Your task to perform on an android device: uninstall "Move to iOS" Image 0: 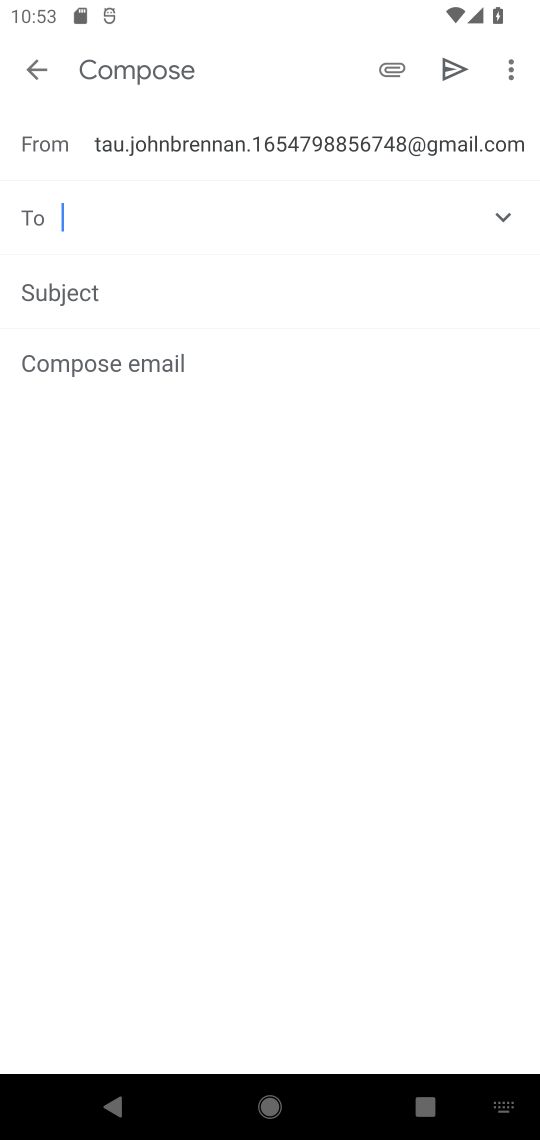
Step 0: press home button
Your task to perform on an android device: uninstall "Move to iOS" Image 1: 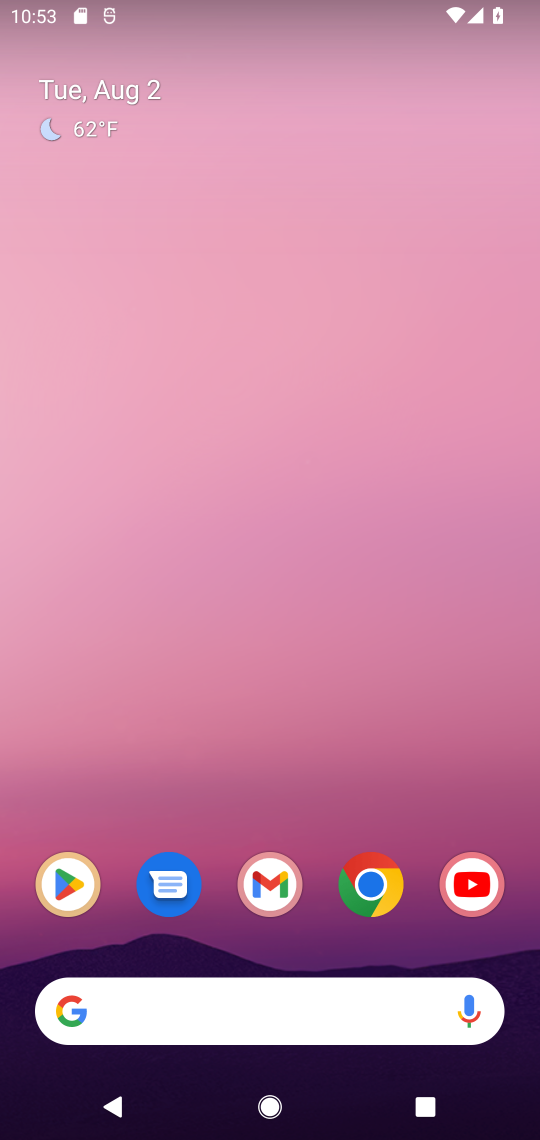
Step 1: click (66, 898)
Your task to perform on an android device: uninstall "Move to iOS" Image 2: 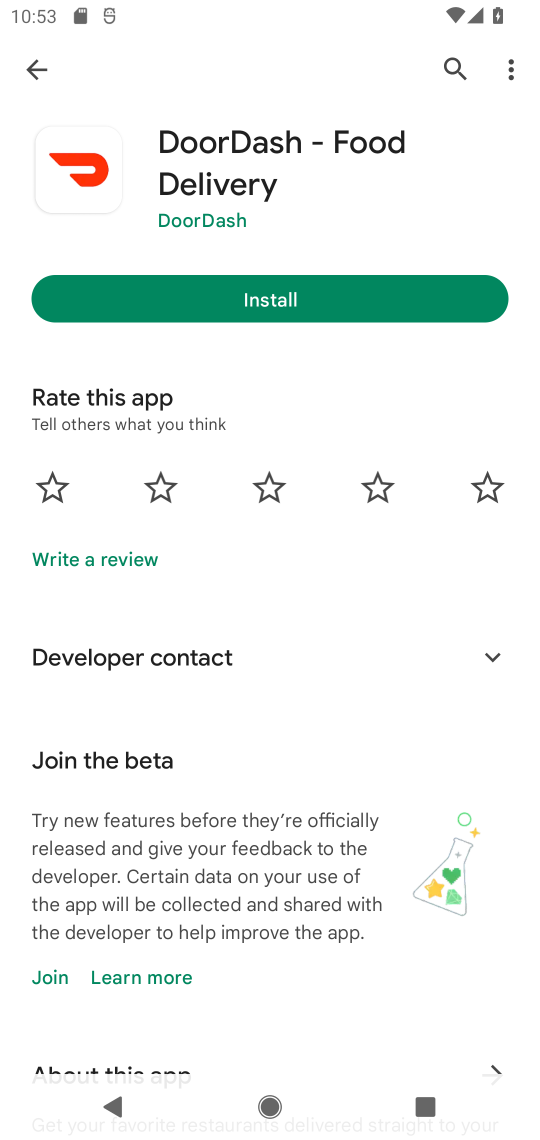
Step 2: click (36, 68)
Your task to perform on an android device: uninstall "Move to iOS" Image 3: 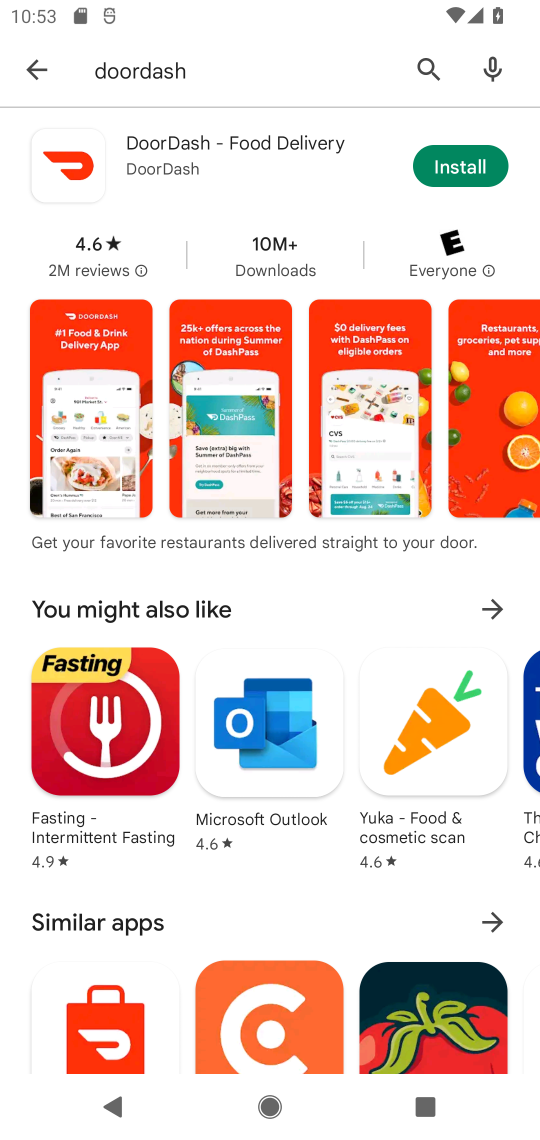
Step 3: click (224, 71)
Your task to perform on an android device: uninstall "Move to iOS" Image 4: 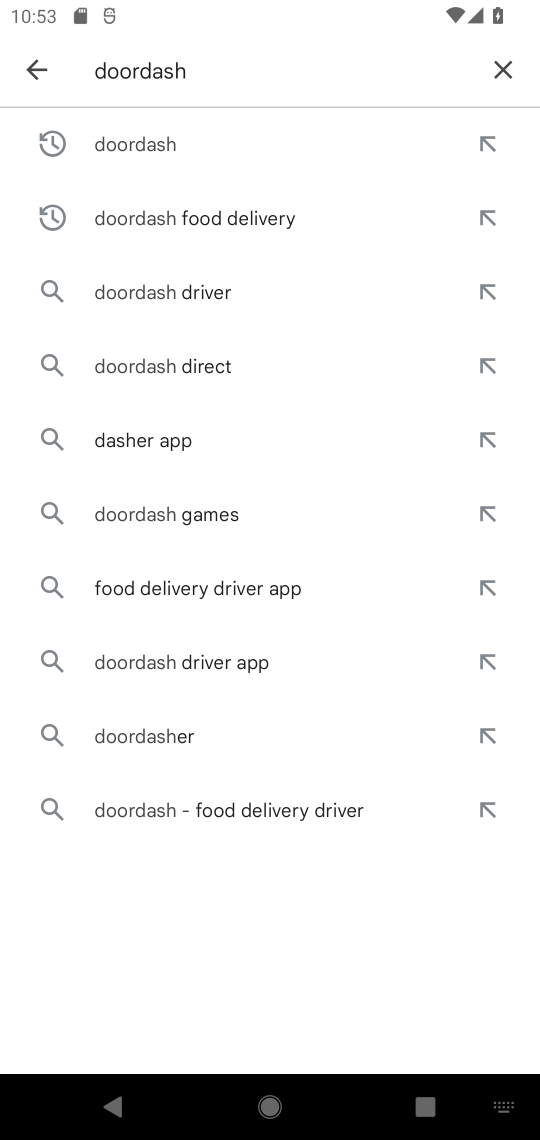
Step 4: click (498, 60)
Your task to perform on an android device: uninstall "Move to iOS" Image 5: 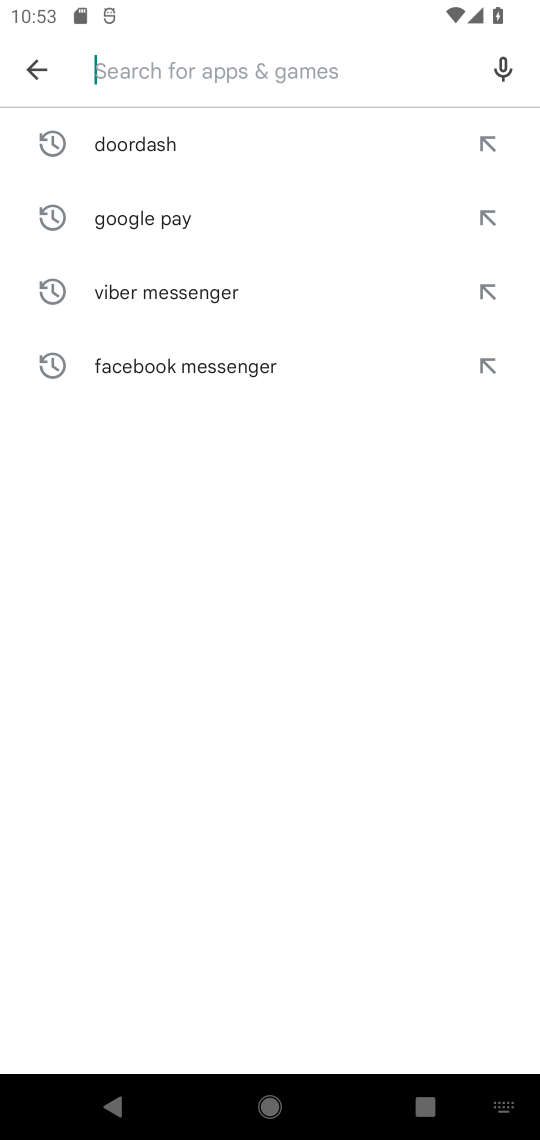
Step 5: type "MOve to IOS"
Your task to perform on an android device: uninstall "Move to iOS" Image 6: 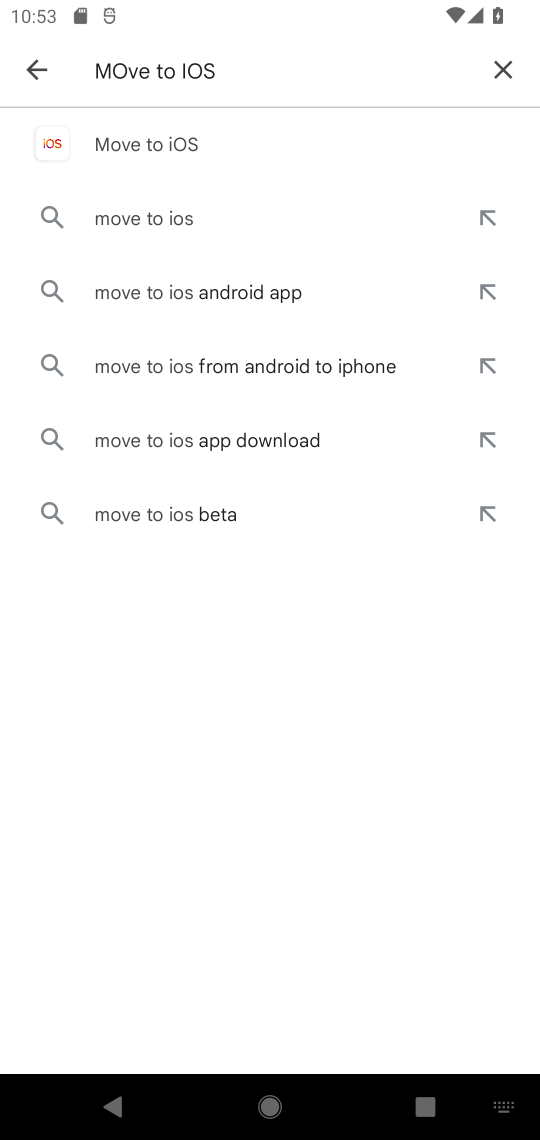
Step 6: click (169, 161)
Your task to perform on an android device: uninstall "Move to iOS" Image 7: 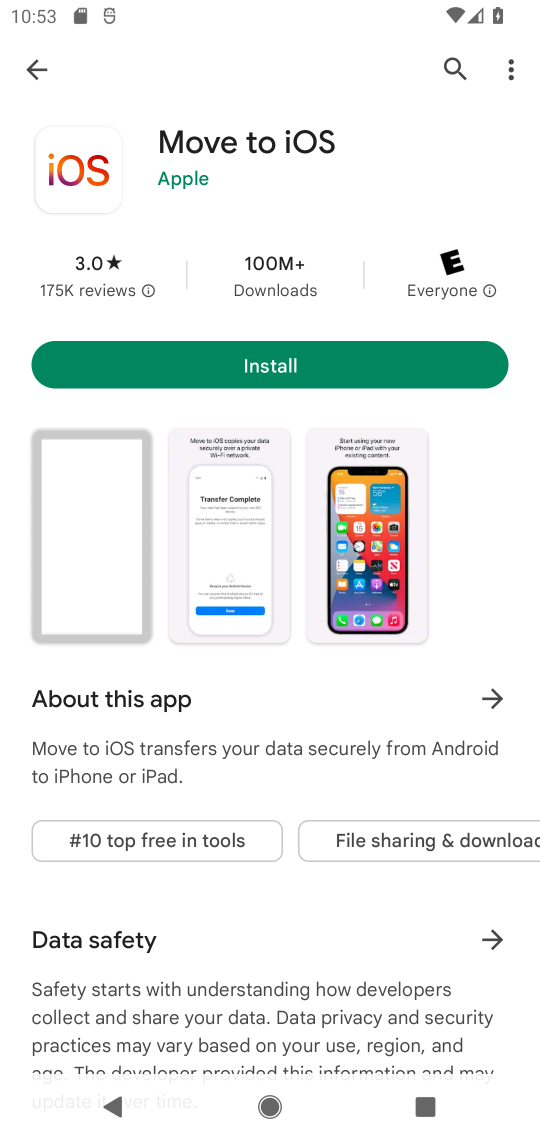
Step 7: task complete